Your task to perform on an android device: Turn off the flashlight Image 0: 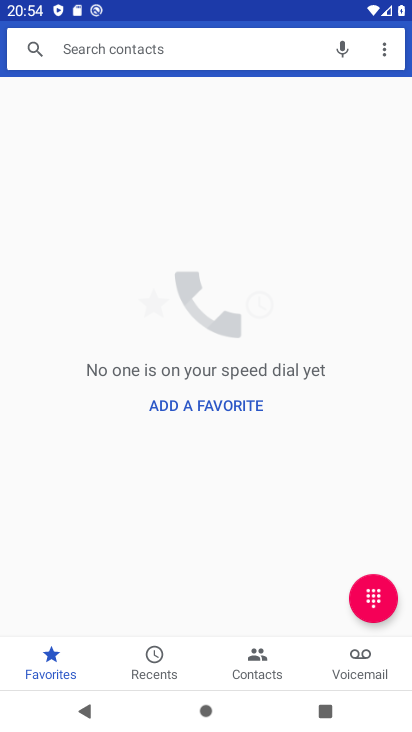
Step 0: press home button
Your task to perform on an android device: Turn off the flashlight Image 1: 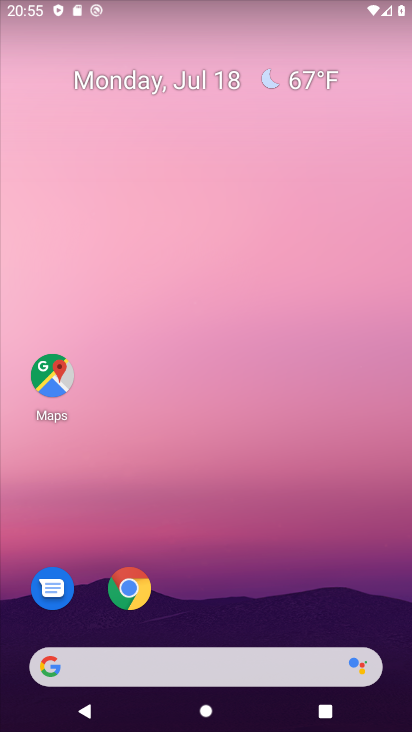
Step 1: drag from (236, 7) to (284, 467)
Your task to perform on an android device: Turn off the flashlight Image 2: 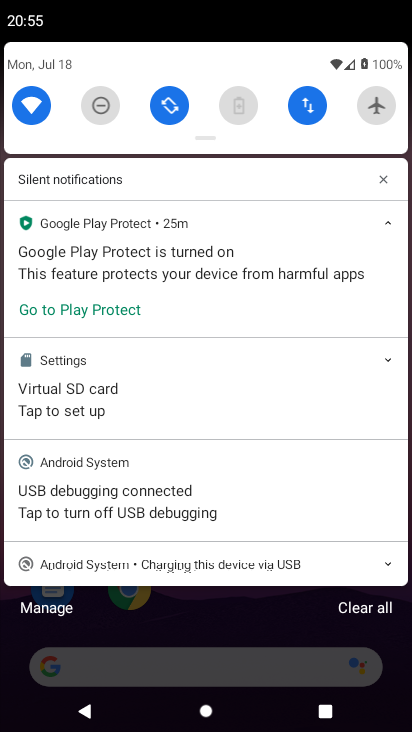
Step 2: drag from (202, 131) to (186, 469)
Your task to perform on an android device: Turn off the flashlight Image 3: 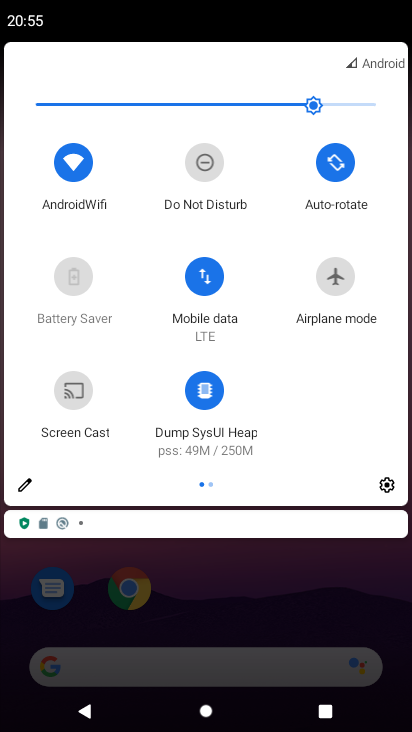
Step 3: click (17, 485)
Your task to perform on an android device: Turn off the flashlight Image 4: 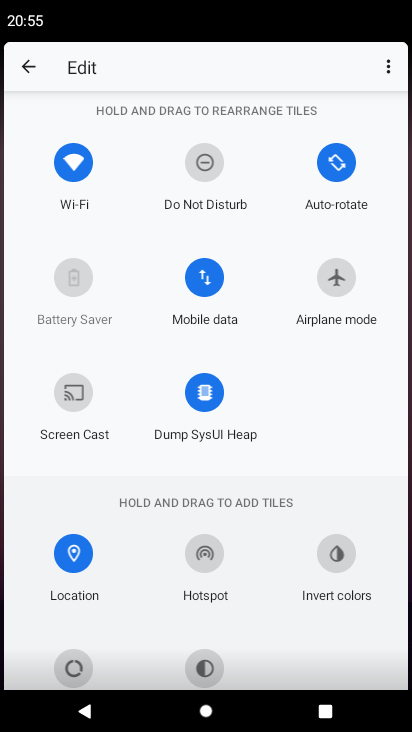
Step 4: task complete